Your task to perform on an android device: Open Google Maps and go to "Timeline" Image 0: 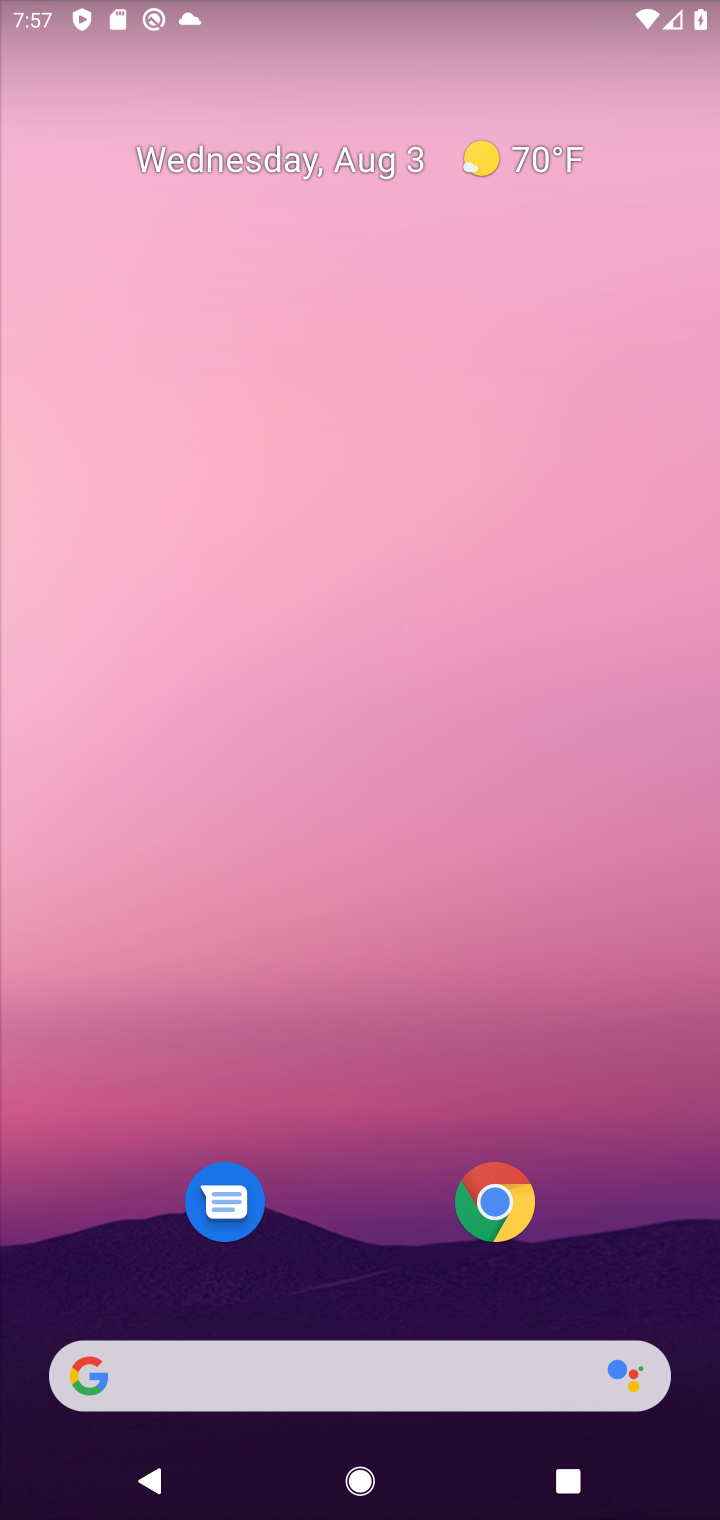
Step 0: drag from (267, 1383) to (355, 273)
Your task to perform on an android device: Open Google Maps and go to "Timeline" Image 1: 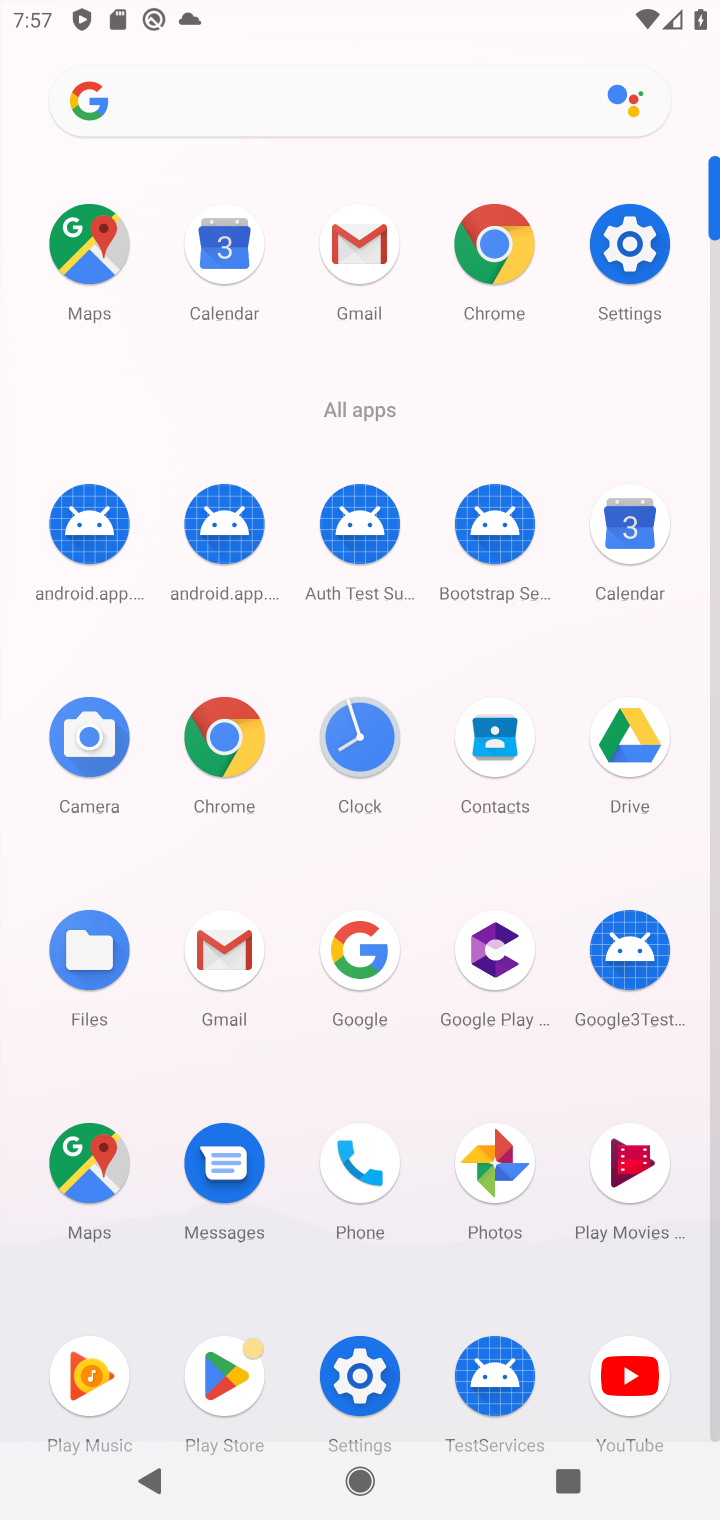
Step 1: click (86, 1168)
Your task to perform on an android device: Open Google Maps and go to "Timeline" Image 2: 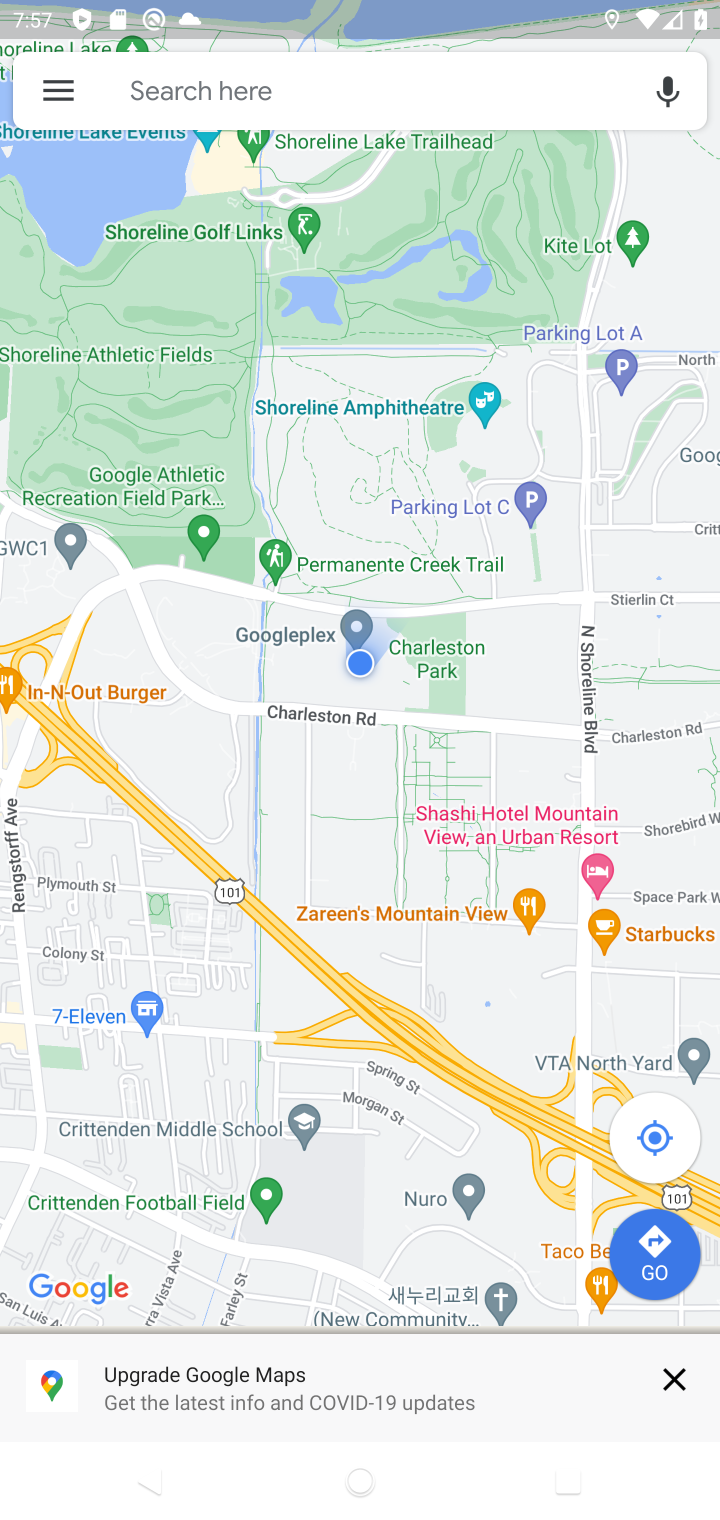
Step 2: click (56, 103)
Your task to perform on an android device: Open Google Maps and go to "Timeline" Image 3: 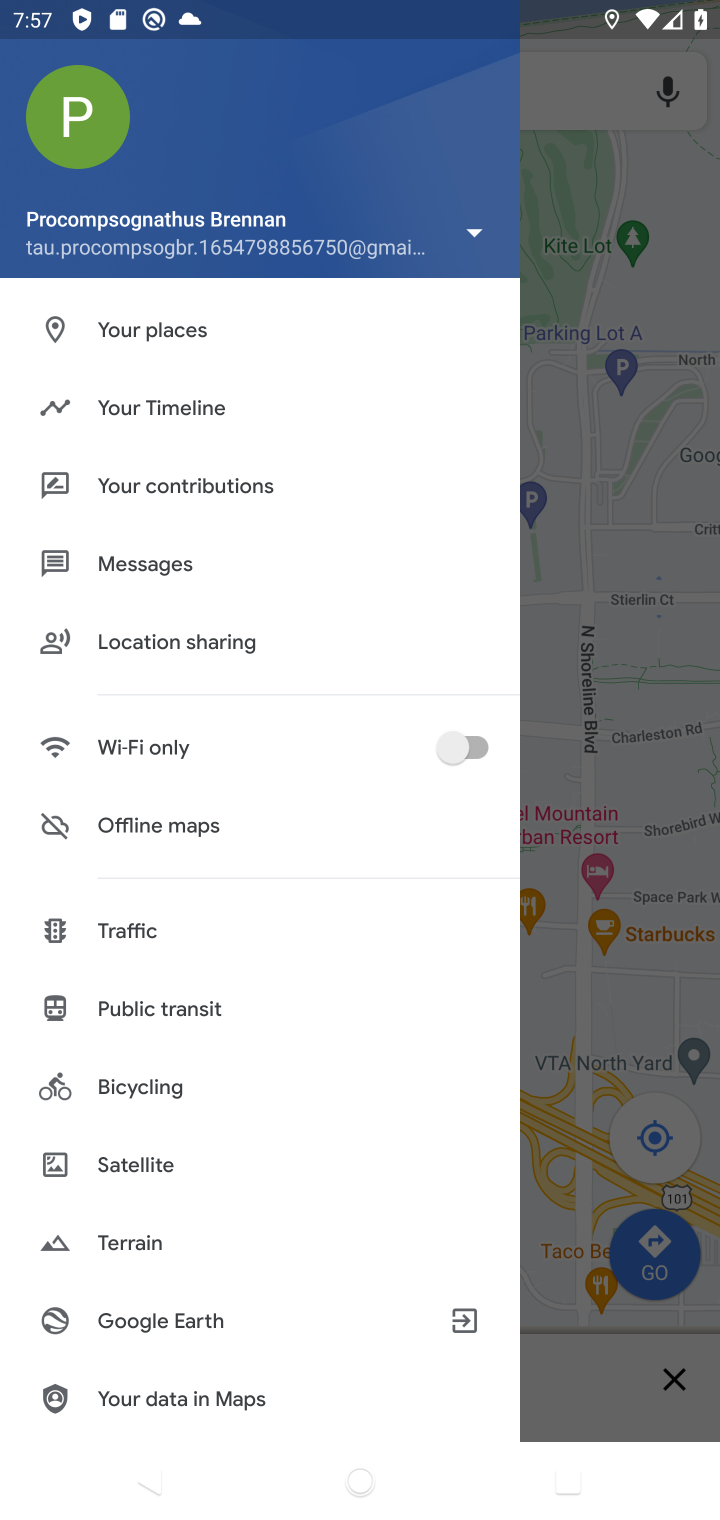
Step 3: click (157, 404)
Your task to perform on an android device: Open Google Maps and go to "Timeline" Image 4: 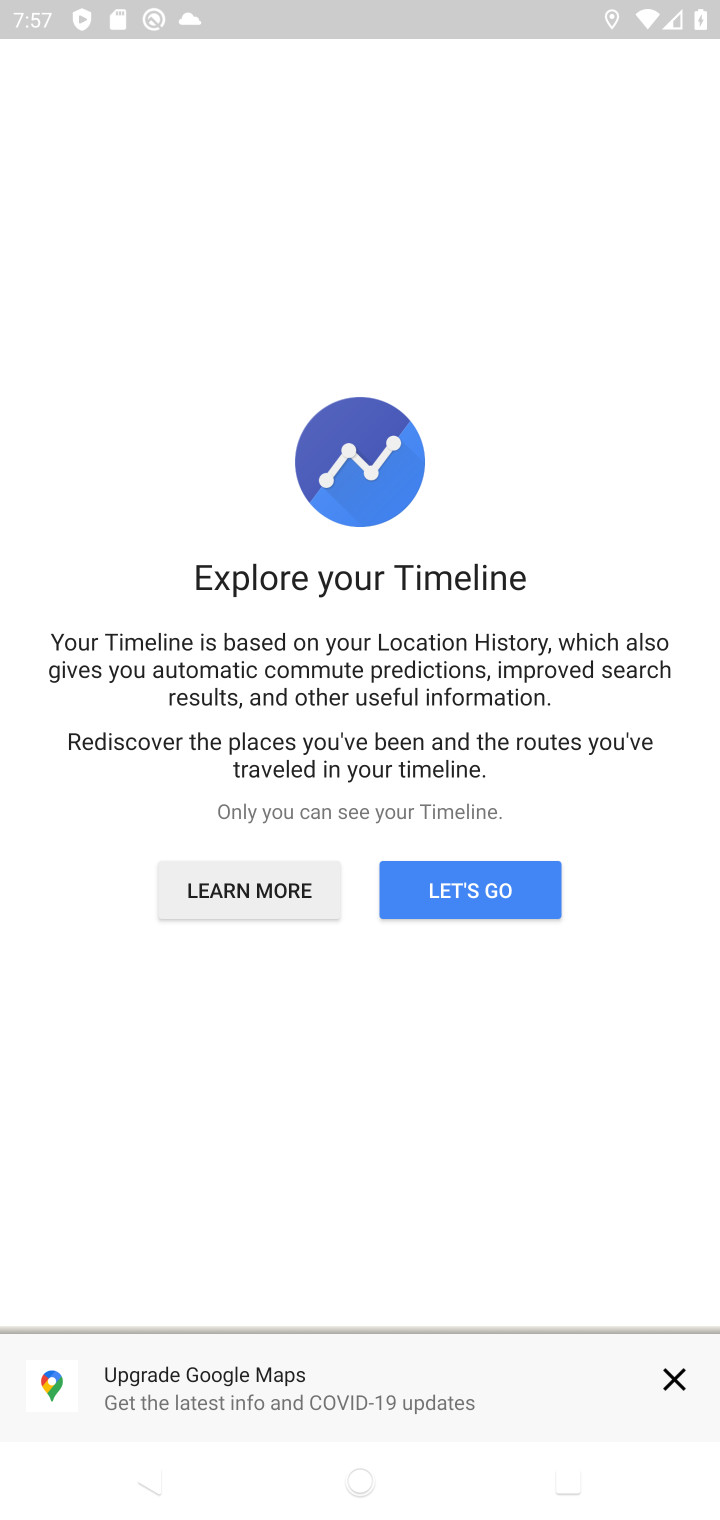
Step 4: click (454, 885)
Your task to perform on an android device: Open Google Maps and go to "Timeline" Image 5: 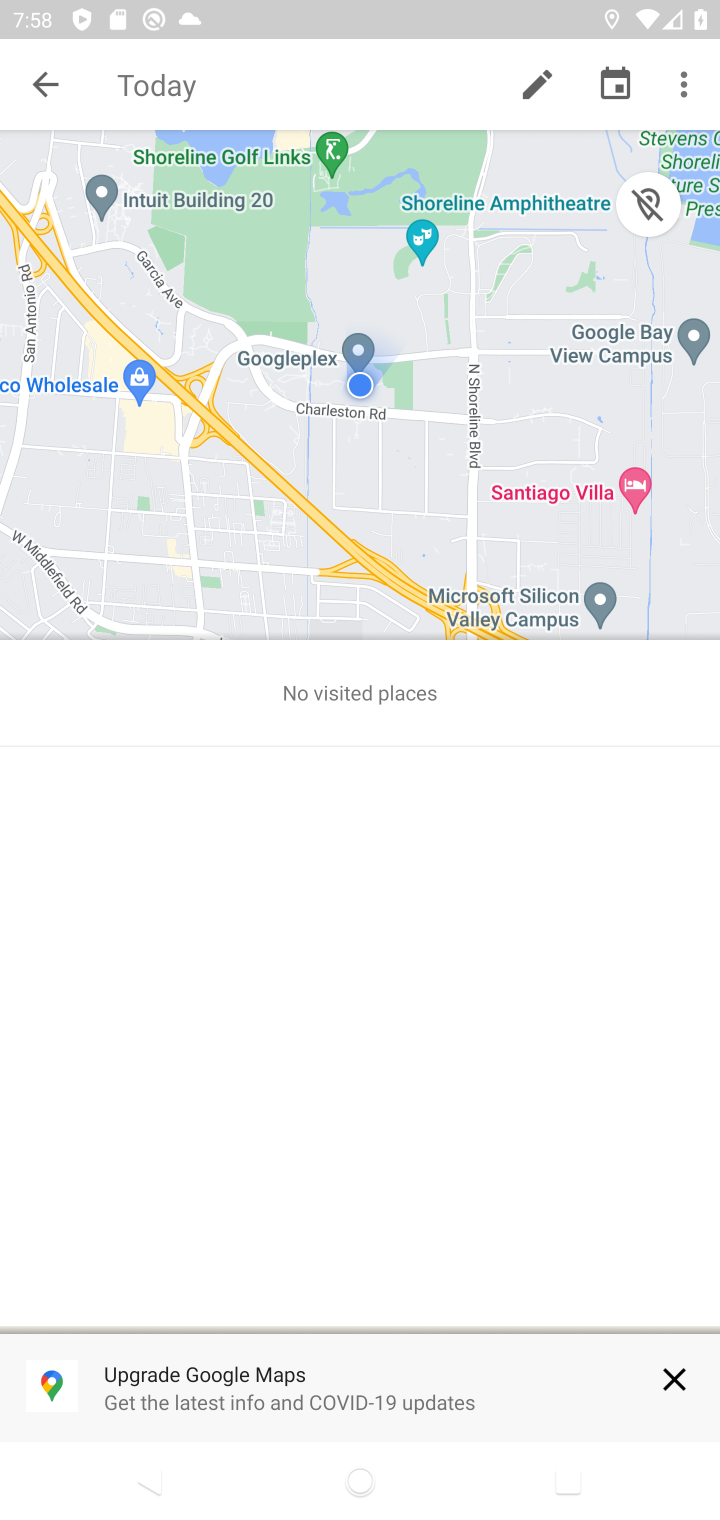
Step 5: task complete